Your task to perform on an android device: delete a single message in the gmail app Image 0: 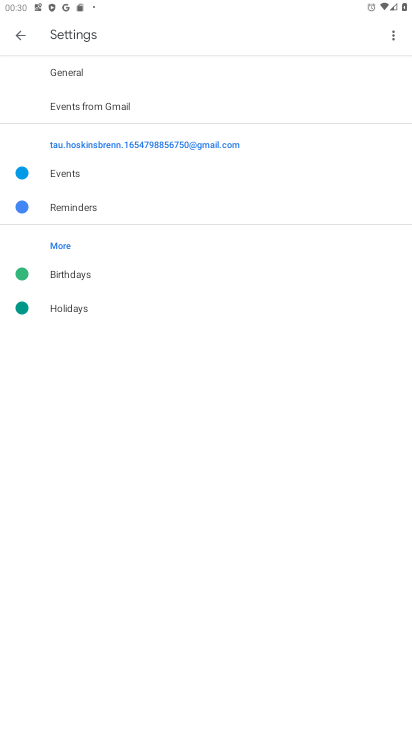
Step 0: press home button
Your task to perform on an android device: delete a single message in the gmail app Image 1: 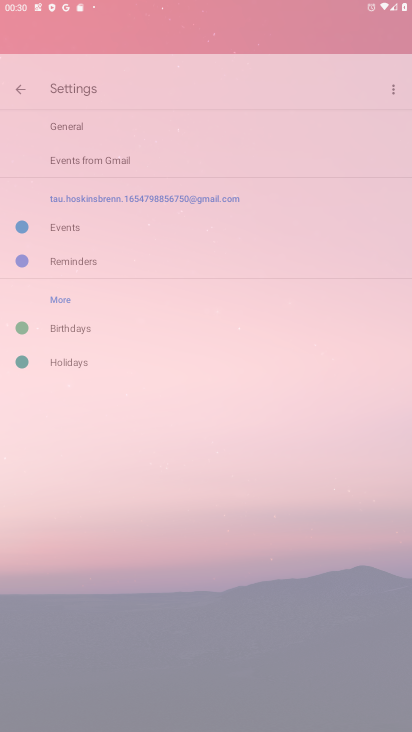
Step 1: drag from (228, 658) to (240, 97)
Your task to perform on an android device: delete a single message in the gmail app Image 2: 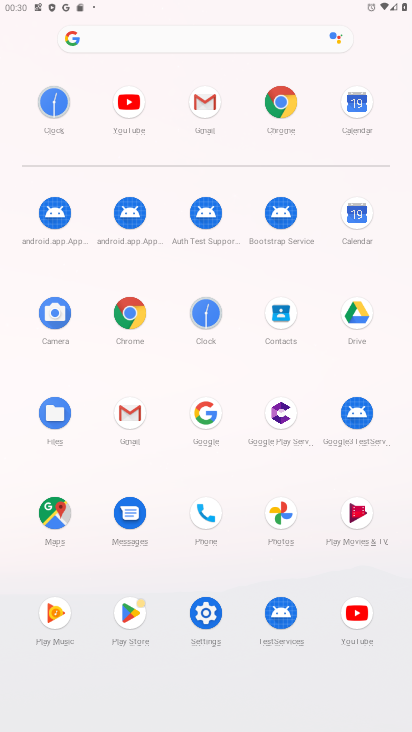
Step 2: click (137, 422)
Your task to perform on an android device: delete a single message in the gmail app Image 3: 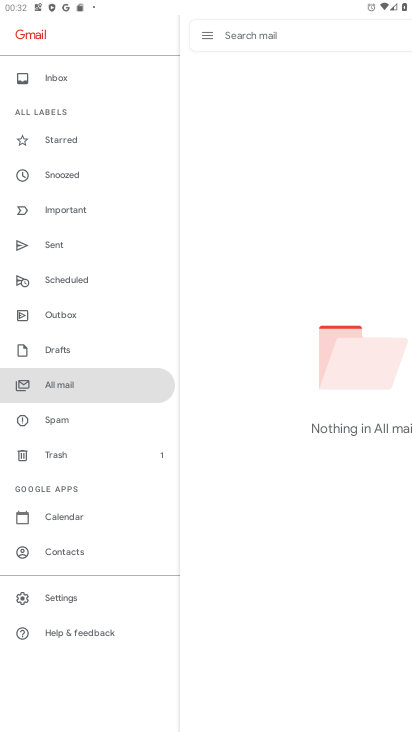
Step 3: task complete